Your task to perform on an android device: What's the weather going to be this weekend? Image 0: 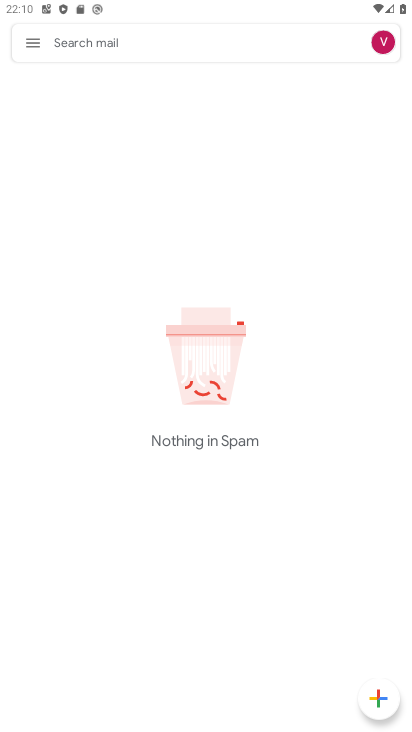
Step 0: press home button
Your task to perform on an android device: What's the weather going to be this weekend? Image 1: 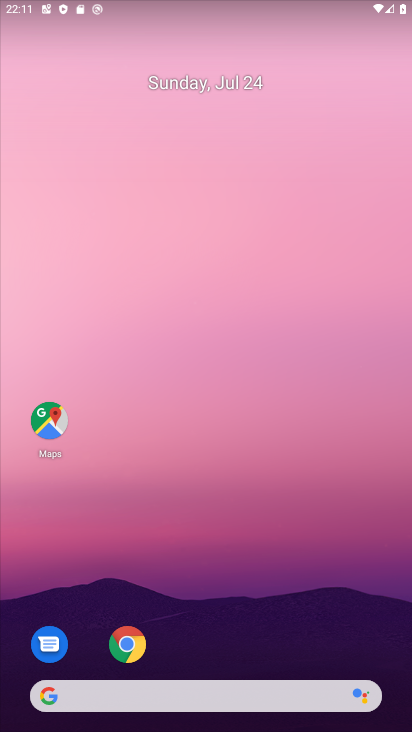
Step 1: click (135, 686)
Your task to perform on an android device: What's the weather going to be this weekend? Image 2: 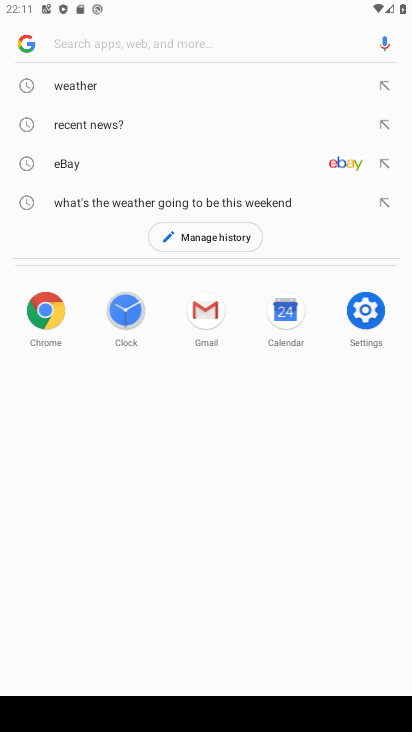
Step 2: click (87, 85)
Your task to perform on an android device: What's the weather going to be this weekend? Image 3: 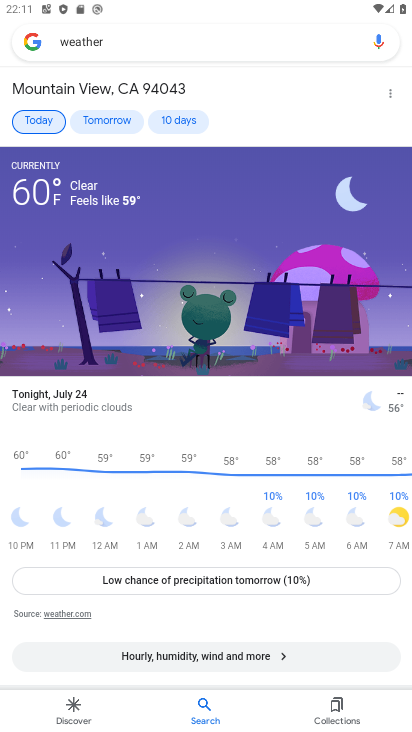
Step 3: click (175, 120)
Your task to perform on an android device: What's the weather going to be this weekend? Image 4: 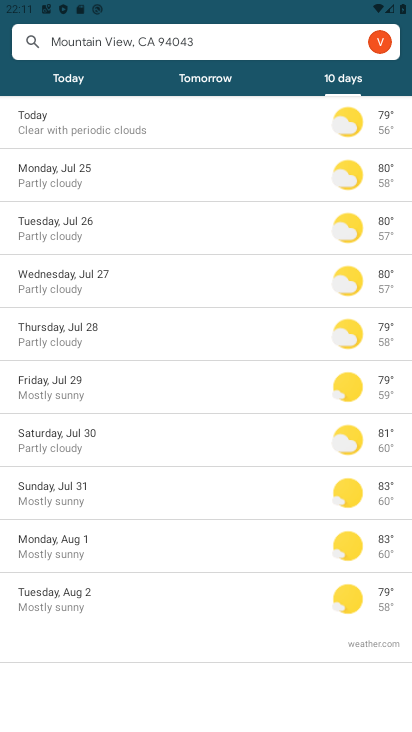
Step 4: task complete